Your task to perform on an android device: How much does a 2 bedroom apartment rent for in San Francisco? Image 0: 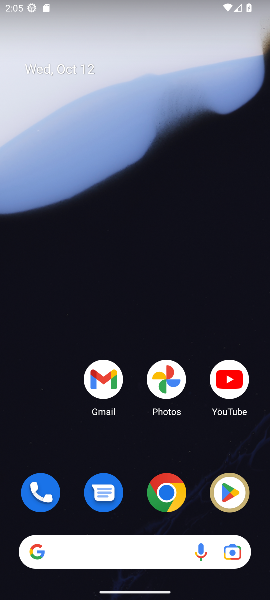
Step 0: click (167, 492)
Your task to perform on an android device: How much does a 2 bedroom apartment rent for in San Francisco? Image 1: 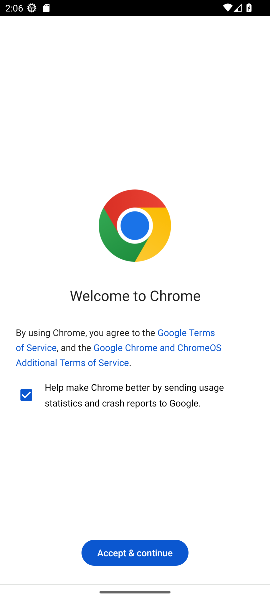
Step 1: click (131, 553)
Your task to perform on an android device: How much does a 2 bedroom apartment rent for in San Francisco? Image 2: 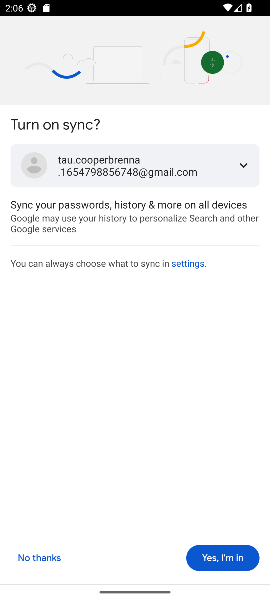
Step 2: click (41, 558)
Your task to perform on an android device: How much does a 2 bedroom apartment rent for in San Francisco? Image 3: 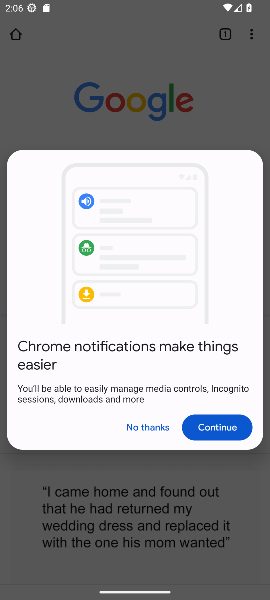
Step 3: click (142, 431)
Your task to perform on an android device: How much does a 2 bedroom apartment rent for in San Francisco? Image 4: 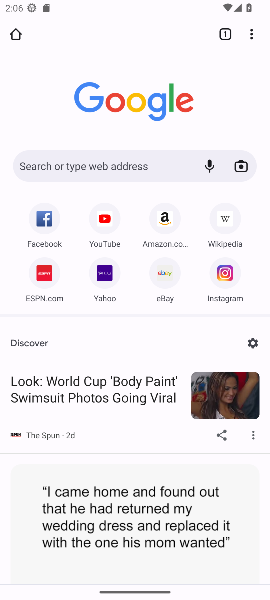
Step 4: click (107, 164)
Your task to perform on an android device: How much does a 2 bedroom apartment rent for in San Francisco? Image 5: 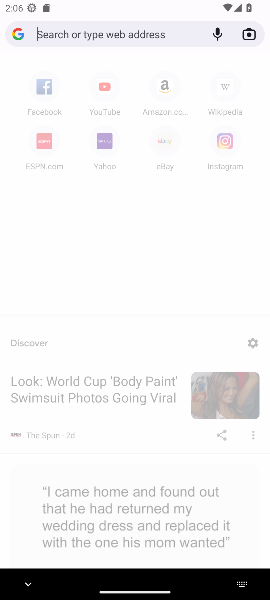
Step 5: type "2 bedroom apartment rent for in San Francisco"
Your task to perform on an android device: How much does a 2 bedroom apartment rent for in San Francisco? Image 6: 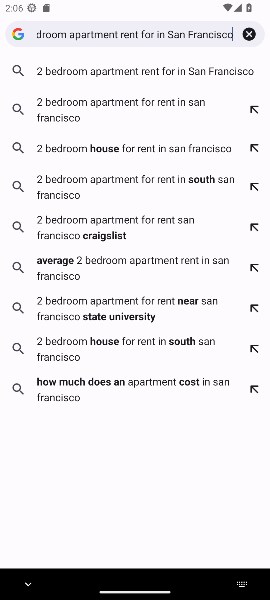
Step 6: click (136, 74)
Your task to perform on an android device: How much does a 2 bedroom apartment rent for in San Francisco? Image 7: 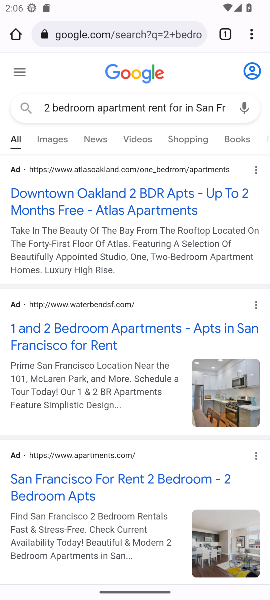
Step 7: drag from (60, 511) to (79, 160)
Your task to perform on an android device: How much does a 2 bedroom apartment rent for in San Francisco? Image 8: 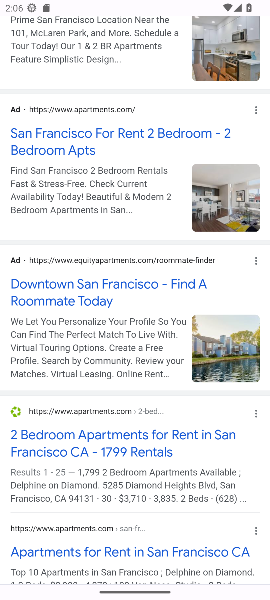
Step 8: drag from (53, 512) to (69, 264)
Your task to perform on an android device: How much does a 2 bedroom apartment rent for in San Francisco? Image 9: 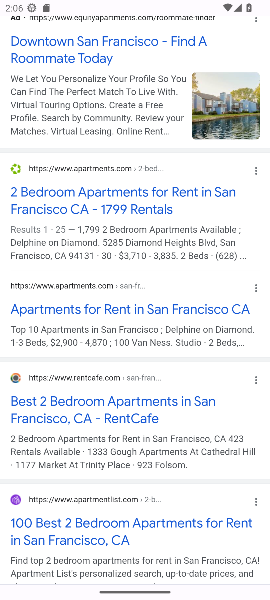
Step 9: click (59, 211)
Your task to perform on an android device: How much does a 2 bedroom apartment rent for in San Francisco? Image 10: 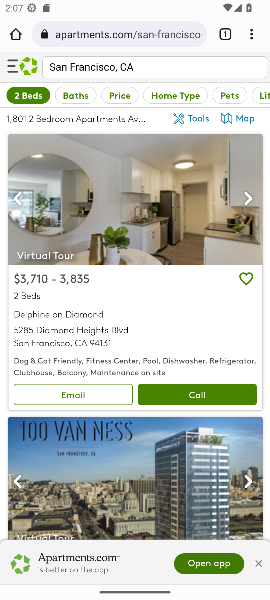
Step 10: task complete